Your task to perform on an android device: check storage Image 0: 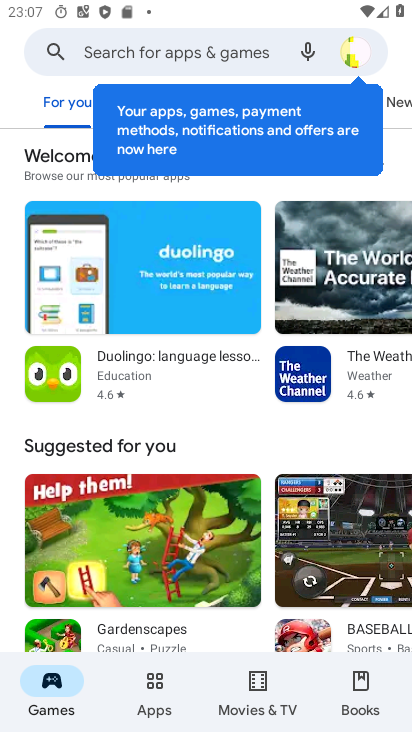
Step 0: press home button
Your task to perform on an android device: check storage Image 1: 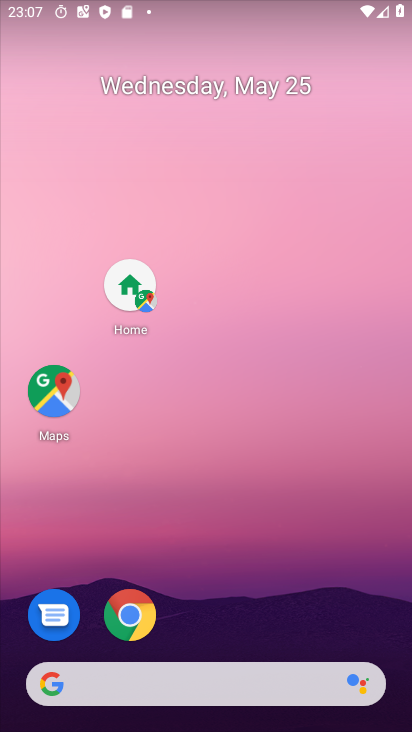
Step 1: drag from (297, 574) to (380, 156)
Your task to perform on an android device: check storage Image 2: 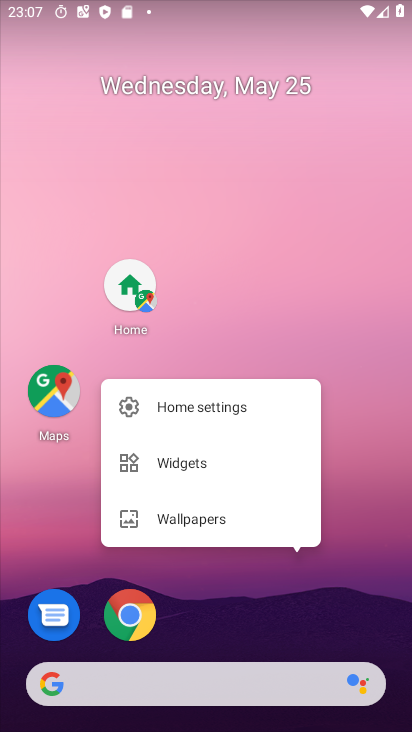
Step 2: drag from (364, 531) to (335, 77)
Your task to perform on an android device: check storage Image 3: 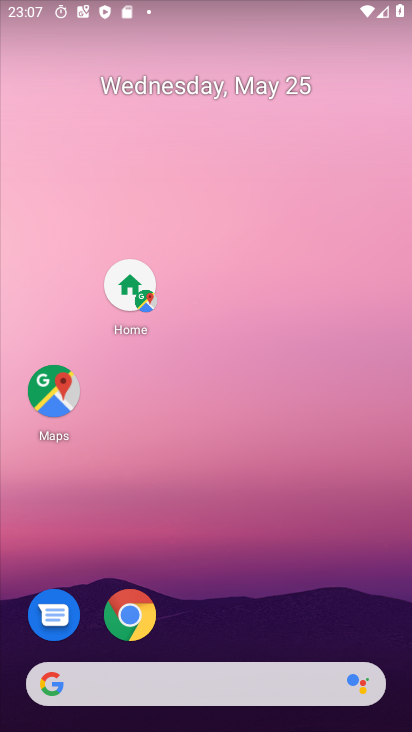
Step 3: drag from (226, 576) to (248, 4)
Your task to perform on an android device: check storage Image 4: 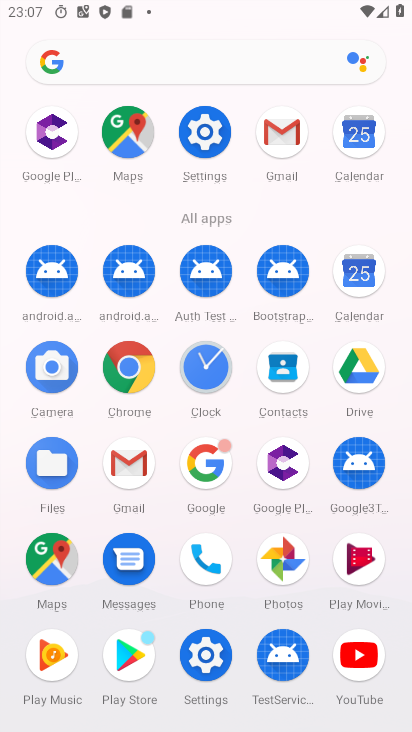
Step 4: click (205, 137)
Your task to perform on an android device: check storage Image 5: 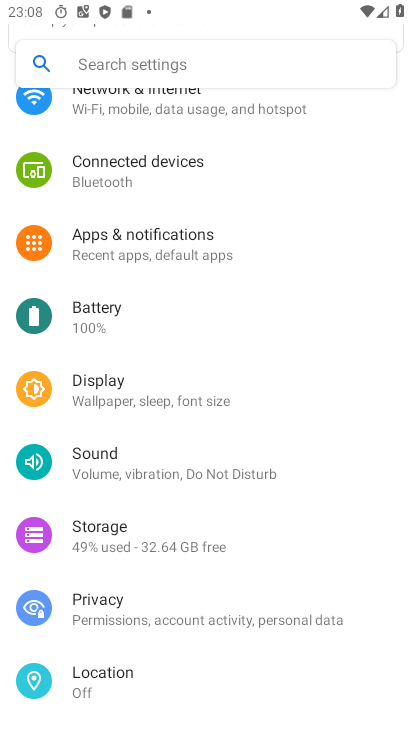
Step 5: click (127, 539)
Your task to perform on an android device: check storage Image 6: 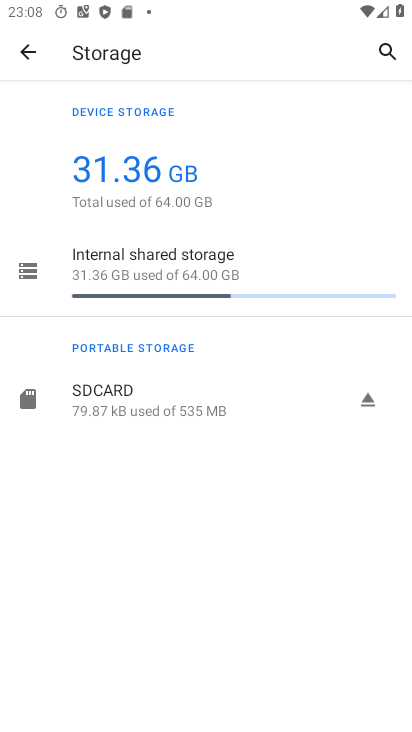
Step 6: task complete